Your task to perform on an android device: open app "Reddit" Image 0: 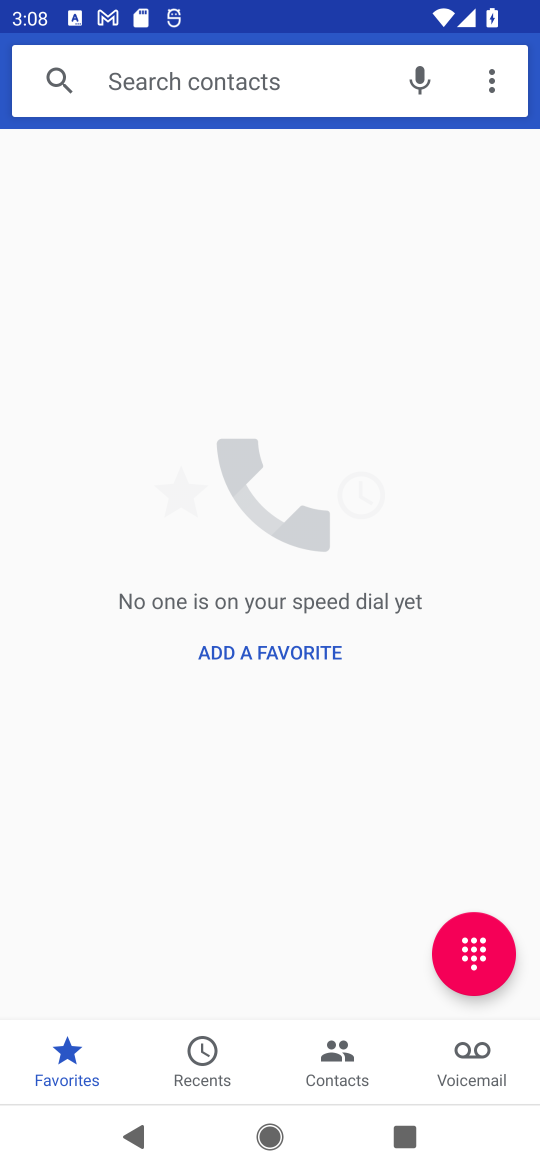
Step 0: press home button
Your task to perform on an android device: open app "Reddit" Image 1: 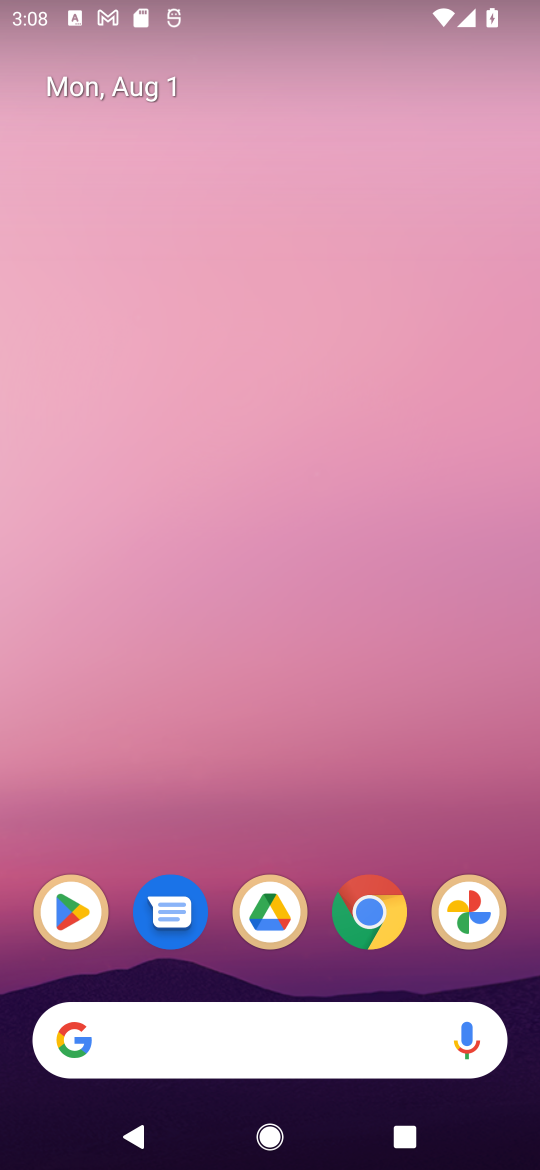
Step 1: click (52, 917)
Your task to perform on an android device: open app "Reddit" Image 2: 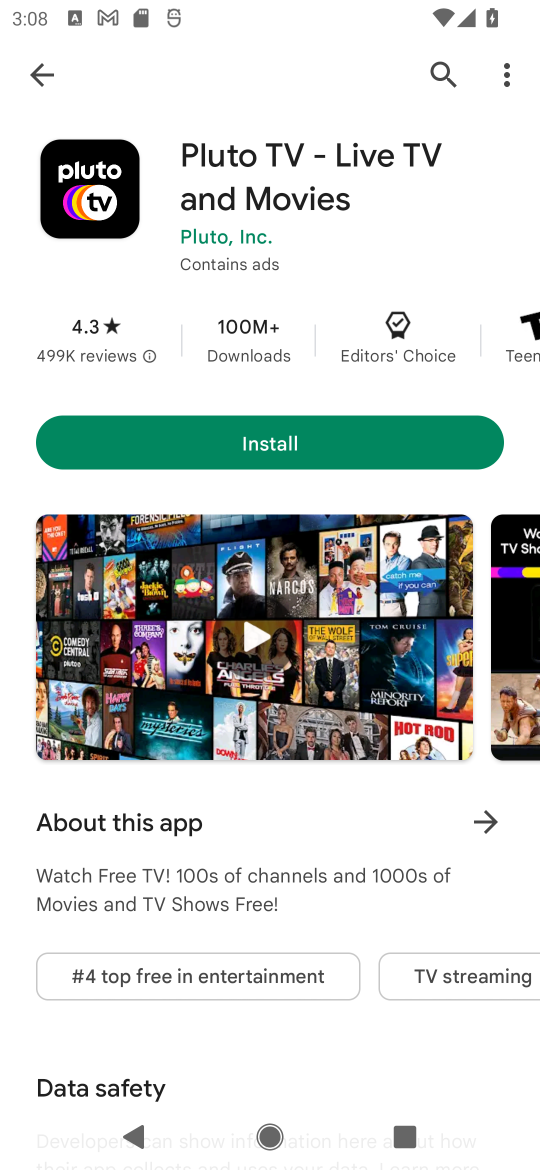
Step 2: click (428, 76)
Your task to perform on an android device: open app "Reddit" Image 3: 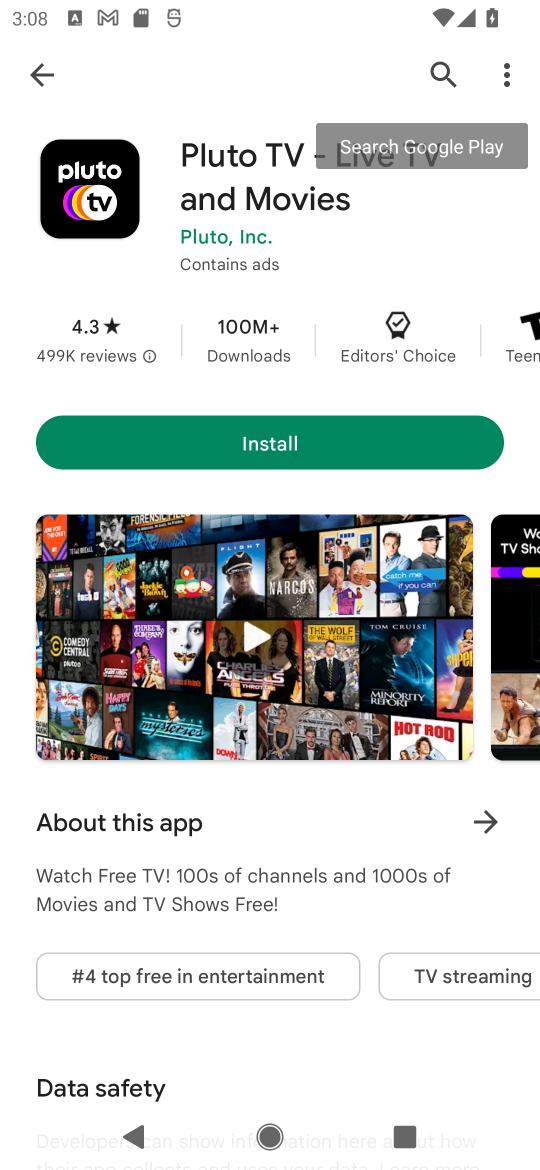
Step 3: click (445, 70)
Your task to perform on an android device: open app "Reddit" Image 4: 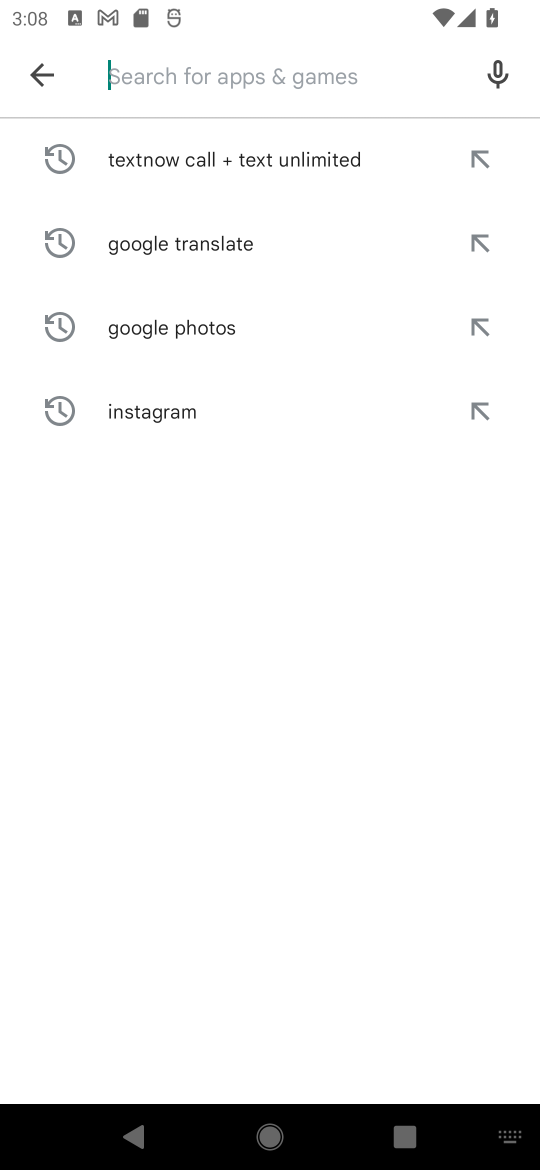
Step 4: click (329, 87)
Your task to perform on an android device: open app "Reddit" Image 5: 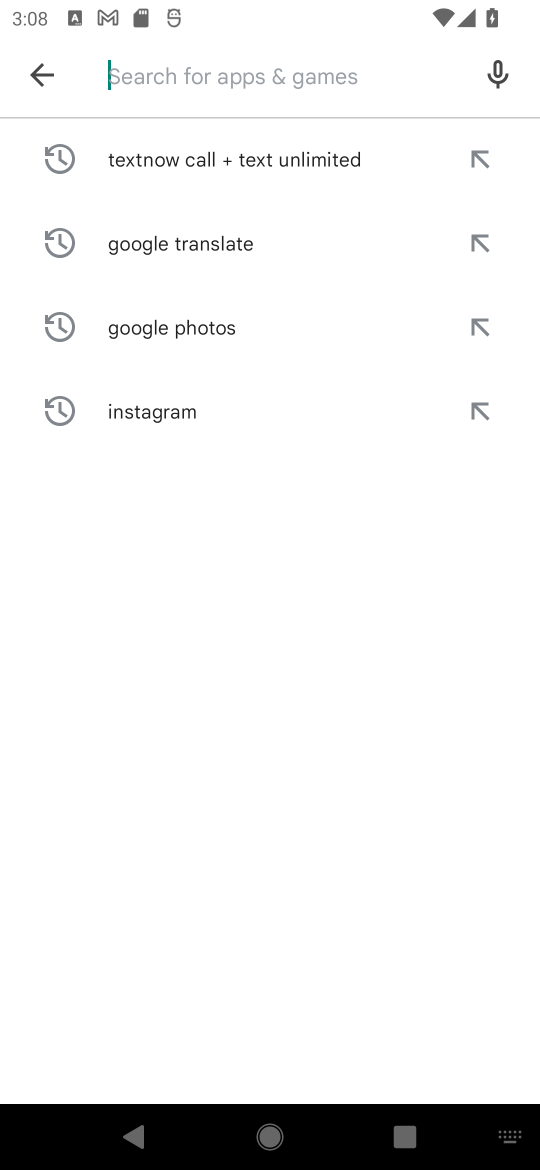
Step 5: type "Reddit"
Your task to perform on an android device: open app "Reddit" Image 6: 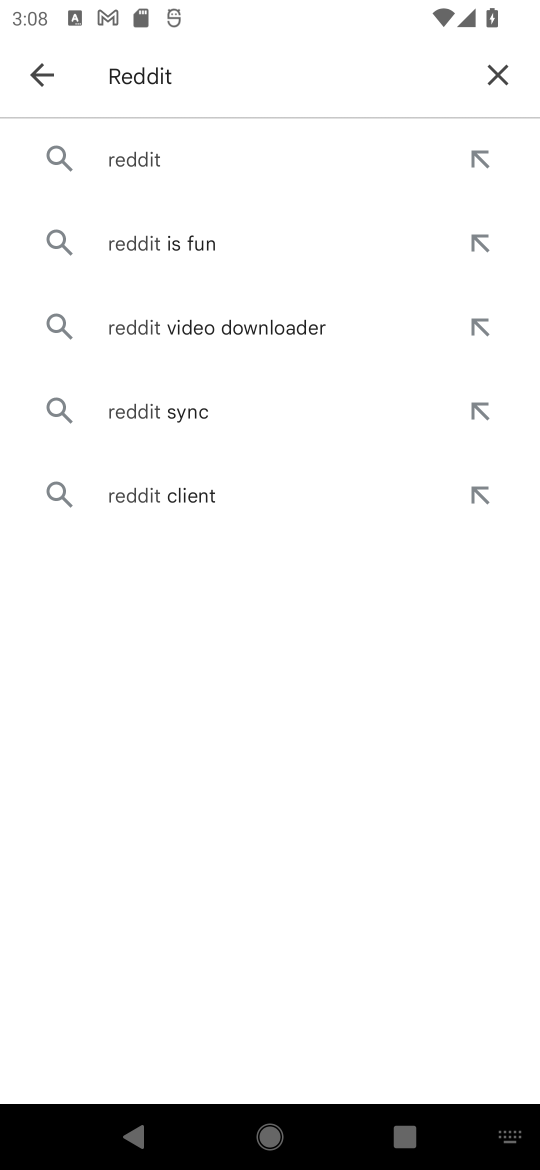
Step 6: click (134, 170)
Your task to perform on an android device: open app "Reddit" Image 7: 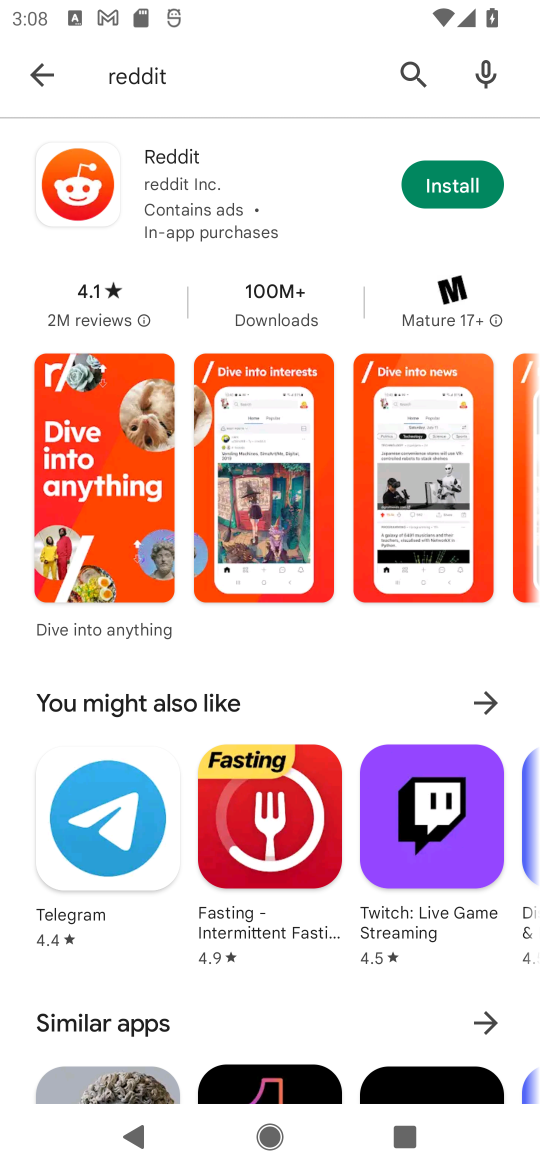
Step 7: task complete